Your task to perform on an android device: What is the recent news? Image 0: 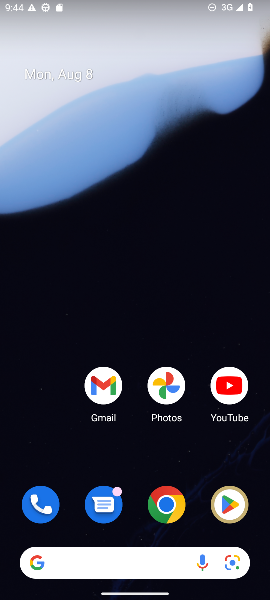
Step 0: drag from (134, 524) to (136, 104)
Your task to perform on an android device: What is the recent news? Image 1: 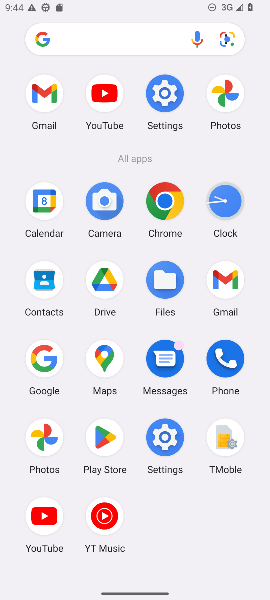
Step 1: click (41, 41)
Your task to perform on an android device: What is the recent news? Image 2: 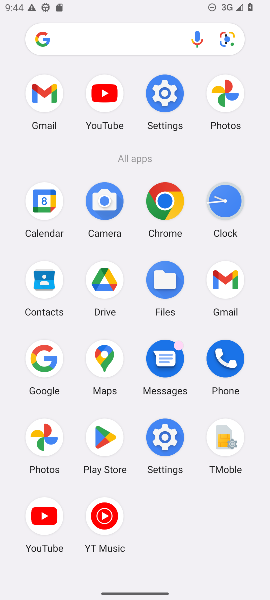
Step 2: press home button
Your task to perform on an android device: What is the recent news? Image 3: 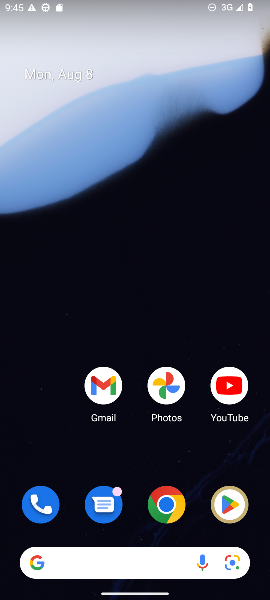
Step 3: click (172, 506)
Your task to perform on an android device: What is the recent news? Image 4: 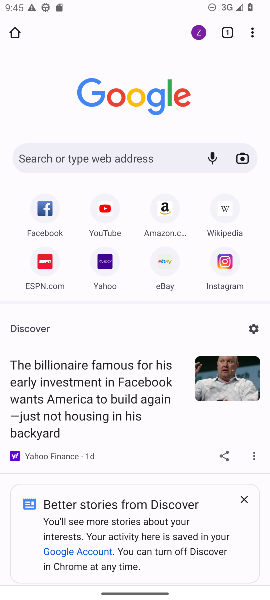
Step 4: click (131, 152)
Your task to perform on an android device: What is the recent news? Image 5: 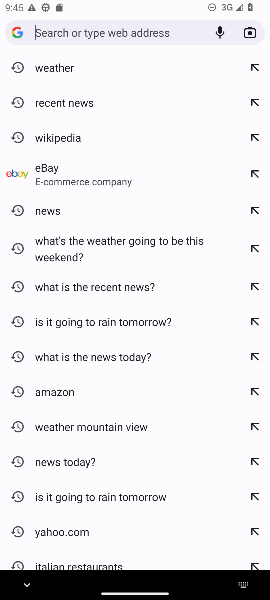
Step 5: type "recent news ?"
Your task to perform on an android device: What is the recent news? Image 6: 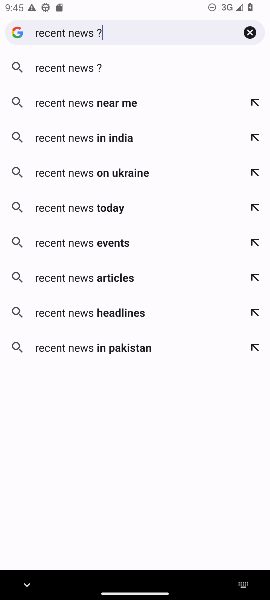
Step 6: click (72, 61)
Your task to perform on an android device: What is the recent news? Image 7: 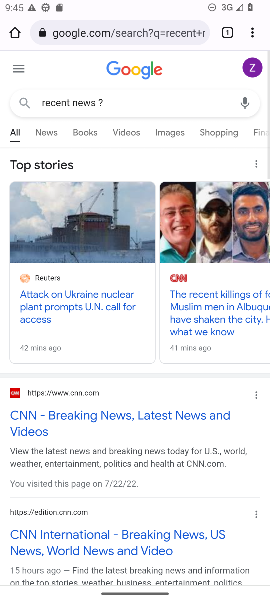
Step 7: task complete